Your task to perform on an android device: toggle wifi Image 0: 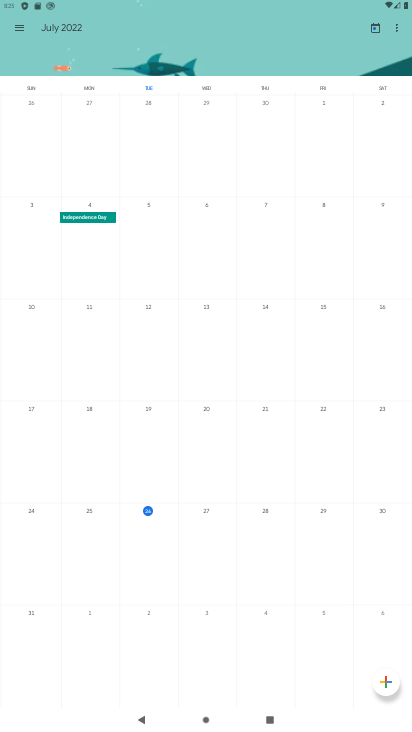
Step 0: press home button
Your task to perform on an android device: toggle wifi Image 1: 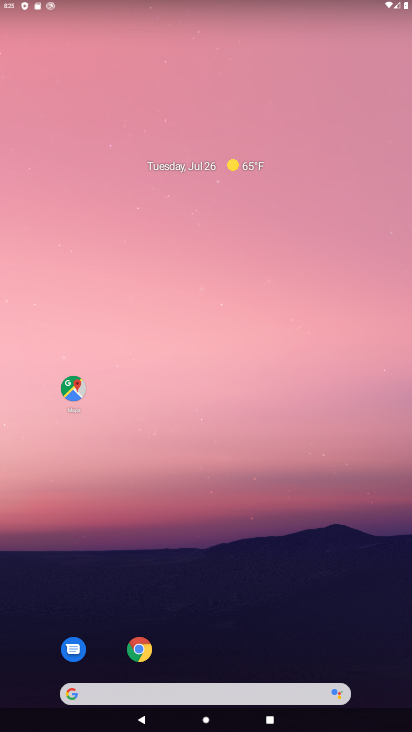
Step 1: drag from (194, 695) to (184, 33)
Your task to perform on an android device: toggle wifi Image 2: 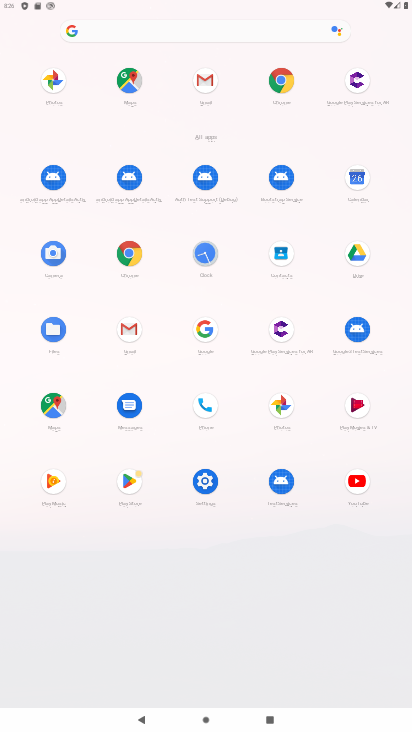
Step 2: click (205, 479)
Your task to perform on an android device: toggle wifi Image 3: 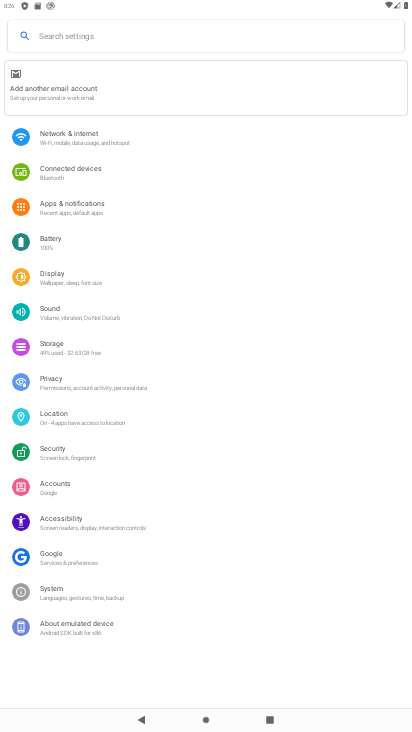
Step 3: click (86, 141)
Your task to perform on an android device: toggle wifi Image 4: 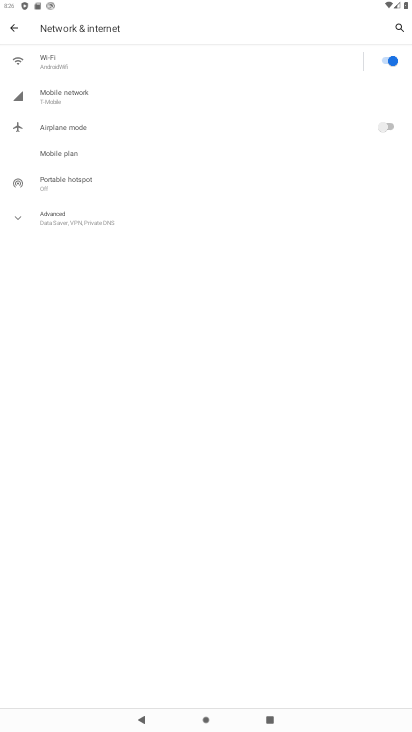
Step 4: click (388, 64)
Your task to perform on an android device: toggle wifi Image 5: 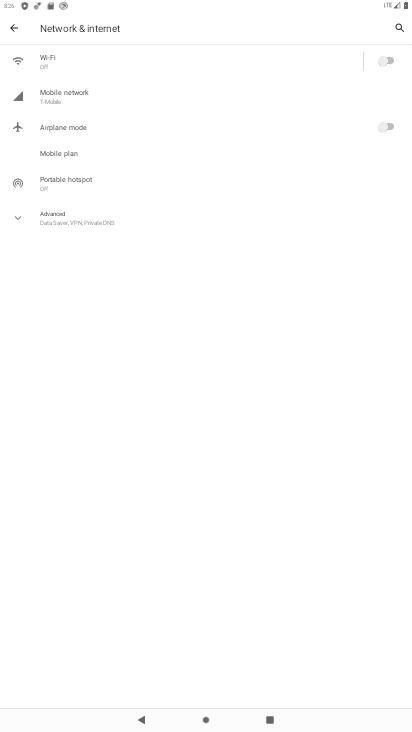
Step 5: task complete